Your task to perform on an android device: set the timer Image 0: 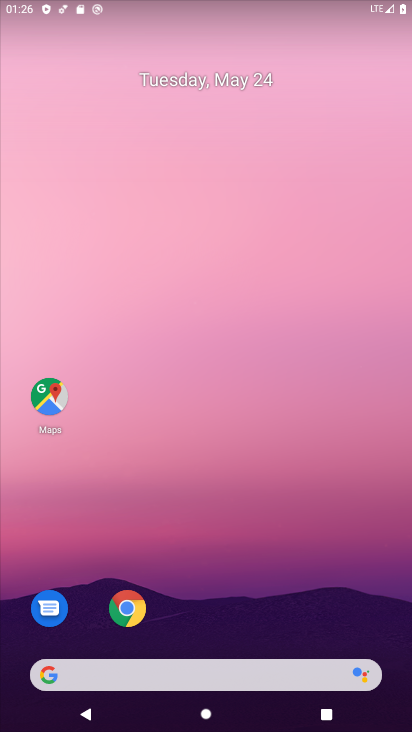
Step 0: drag from (268, 628) to (218, 9)
Your task to perform on an android device: set the timer Image 1: 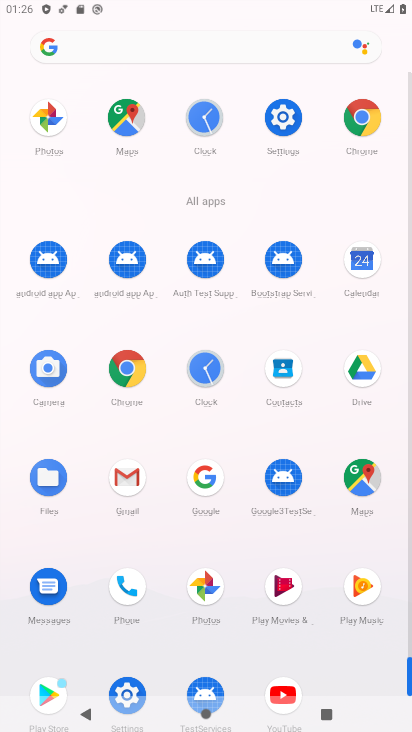
Step 1: click (209, 368)
Your task to perform on an android device: set the timer Image 2: 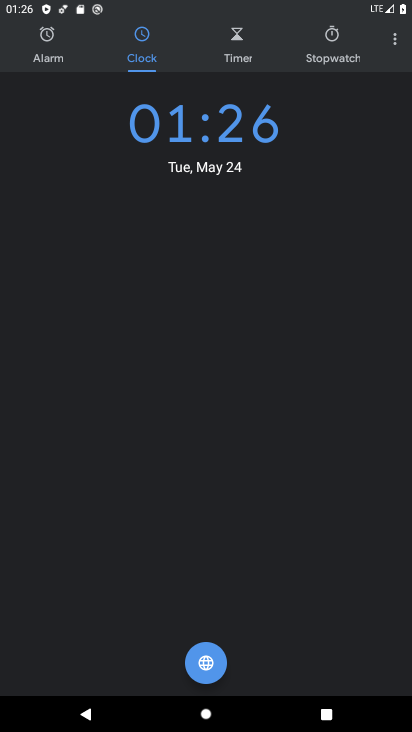
Step 2: click (238, 46)
Your task to perform on an android device: set the timer Image 3: 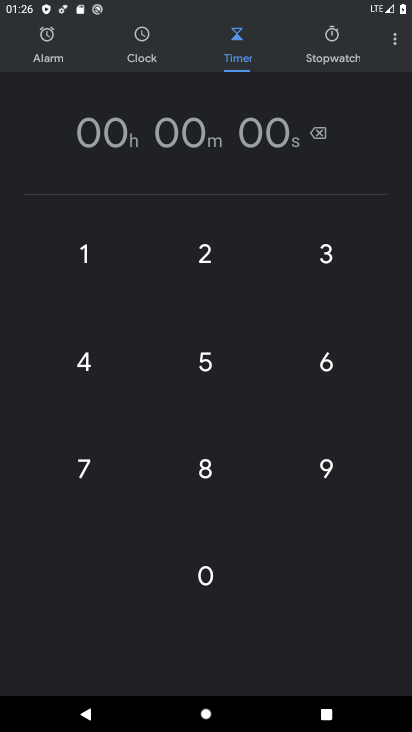
Step 3: type "10000"
Your task to perform on an android device: set the timer Image 4: 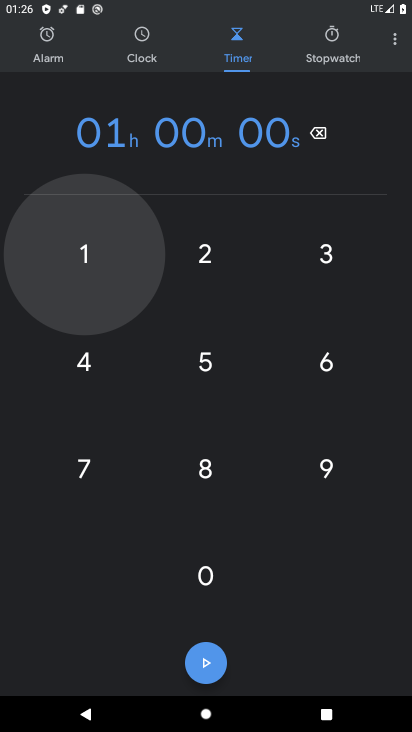
Step 4: click (216, 673)
Your task to perform on an android device: set the timer Image 5: 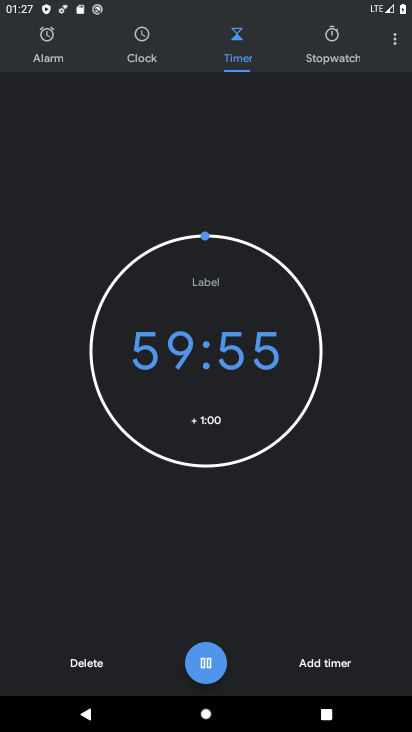
Step 5: task complete